Your task to perform on an android device: snooze an email in the gmail app Image 0: 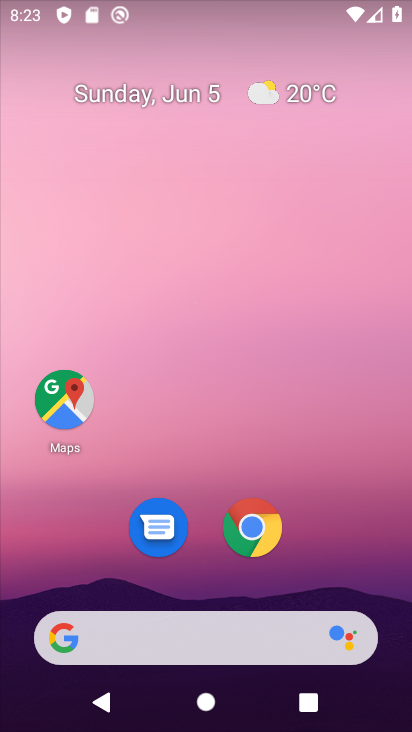
Step 0: drag from (347, 541) to (389, 77)
Your task to perform on an android device: snooze an email in the gmail app Image 1: 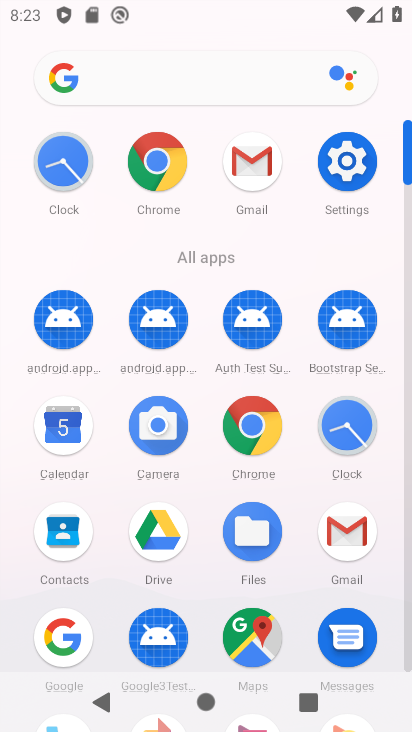
Step 1: click (256, 165)
Your task to perform on an android device: snooze an email in the gmail app Image 2: 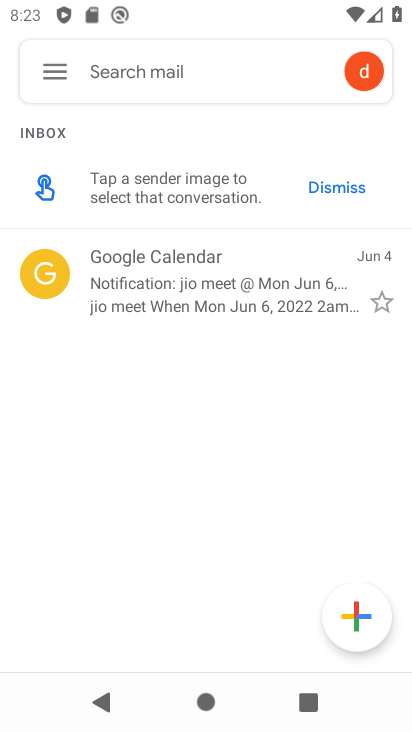
Step 2: click (43, 71)
Your task to perform on an android device: snooze an email in the gmail app Image 3: 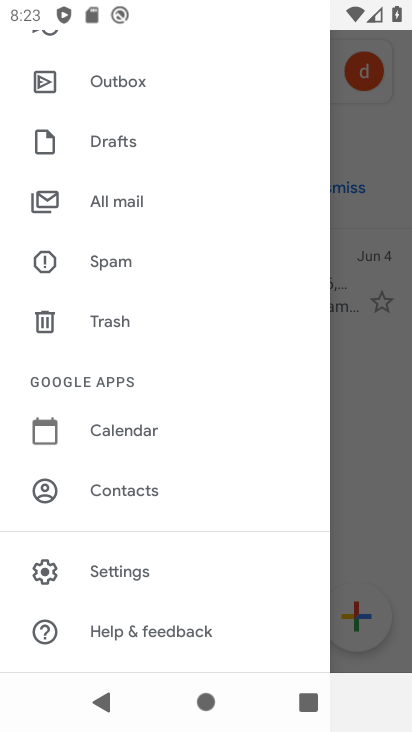
Step 3: click (396, 420)
Your task to perform on an android device: snooze an email in the gmail app Image 4: 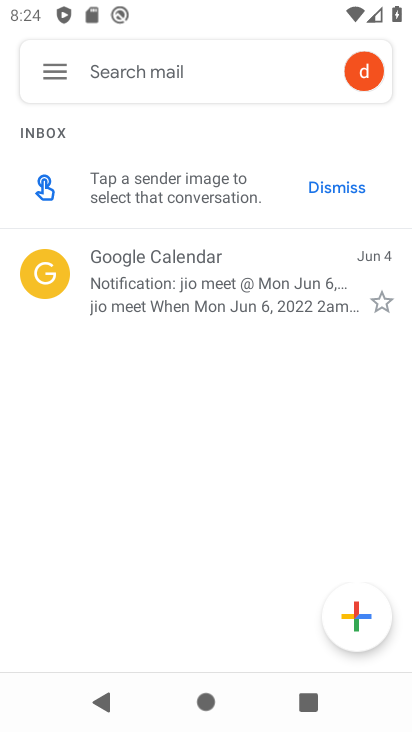
Step 4: click (65, 72)
Your task to perform on an android device: snooze an email in the gmail app Image 5: 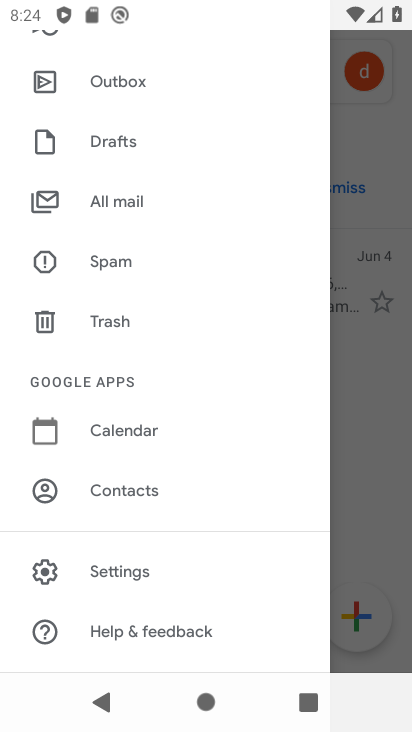
Step 5: click (122, 210)
Your task to perform on an android device: snooze an email in the gmail app Image 6: 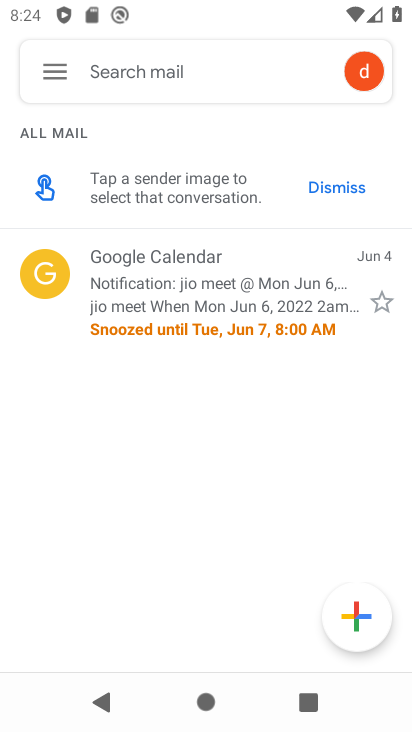
Step 6: task complete